Your task to perform on an android device: Show me productivity apps on the Play Store Image 0: 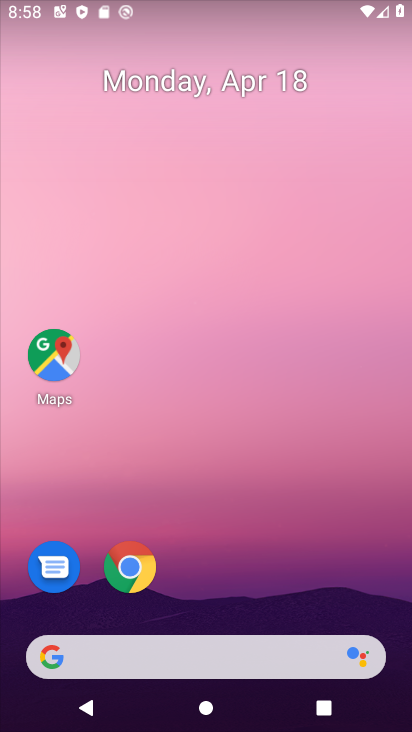
Step 0: drag from (187, 349) to (219, 94)
Your task to perform on an android device: Show me productivity apps on the Play Store Image 1: 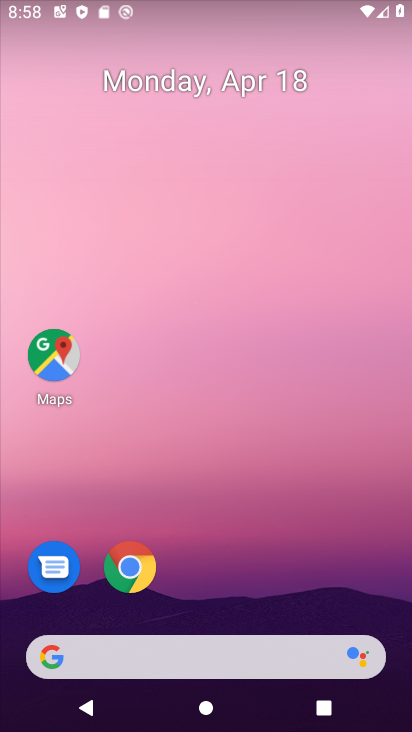
Step 1: drag from (186, 603) to (216, 171)
Your task to perform on an android device: Show me productivity apps on the Play Store Image 2: 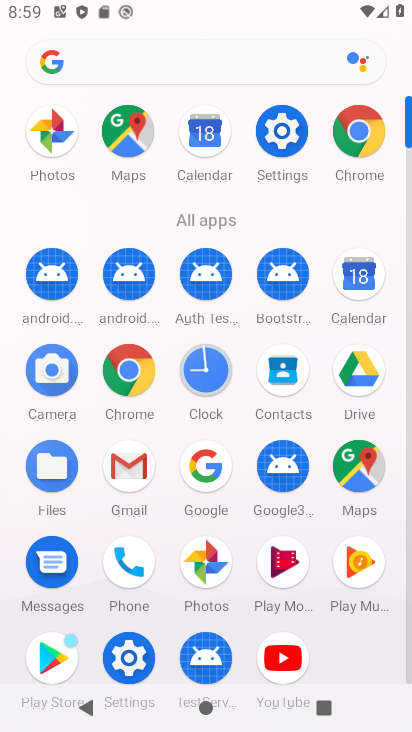
Step 2: click (55, 645)
Your task to perform on an android device: Show me productivity apps on the Play Store Image 3: 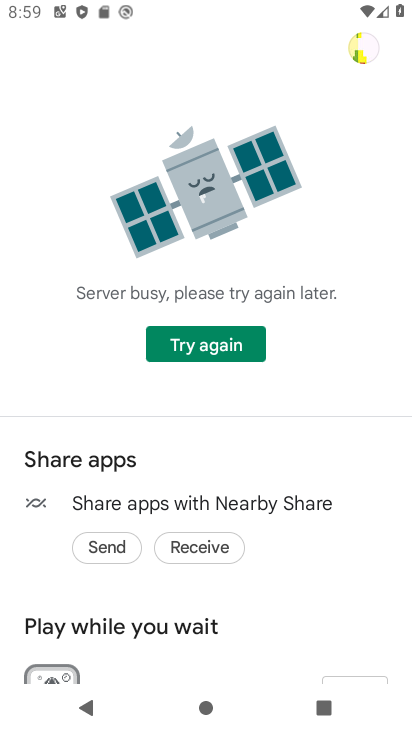
Step 3: drag from (249, 475) to (253, 223)
Your task to perform on an android device: Show me productivity apps on the Play Store Image 4: 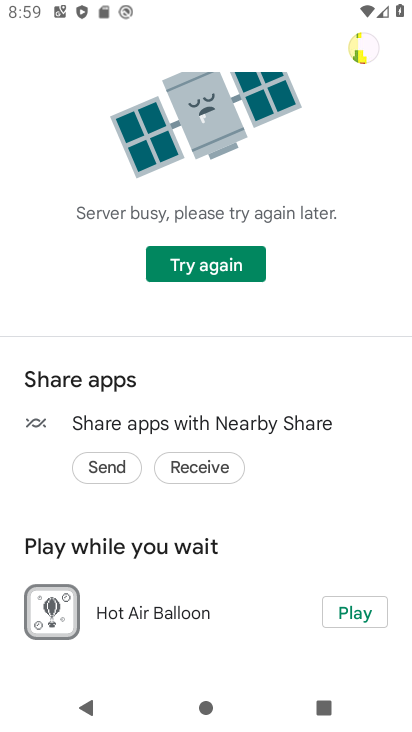
Step 4: drag from (228, 325) to (230, 585)
Your task to perform on an android device: Show me productivity apps on the Play Store Image 5: 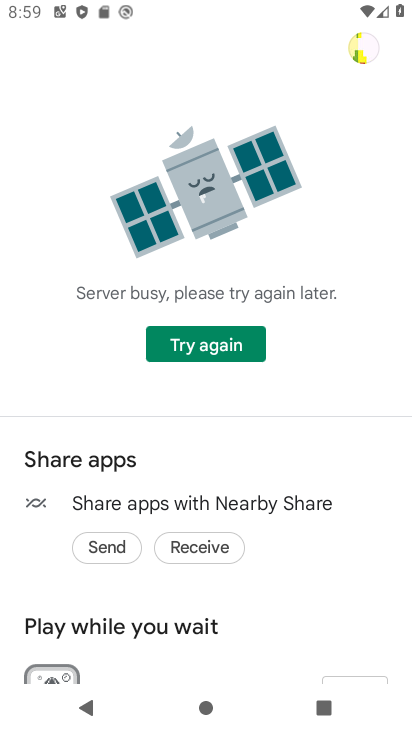
Step 5: click (226, 343)
Your task to perform on an android device: Show me productivity apps on the Play Store Image 6: 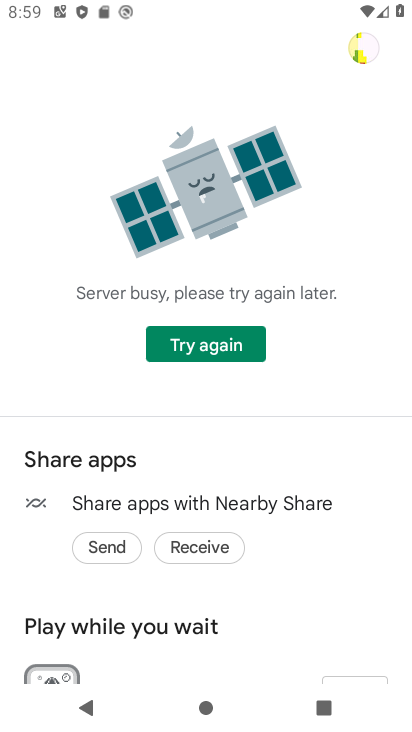
Step 6: click (226, 343)
Your task to perform on an android device: Show me productivity apps on the Play Store Image 7: 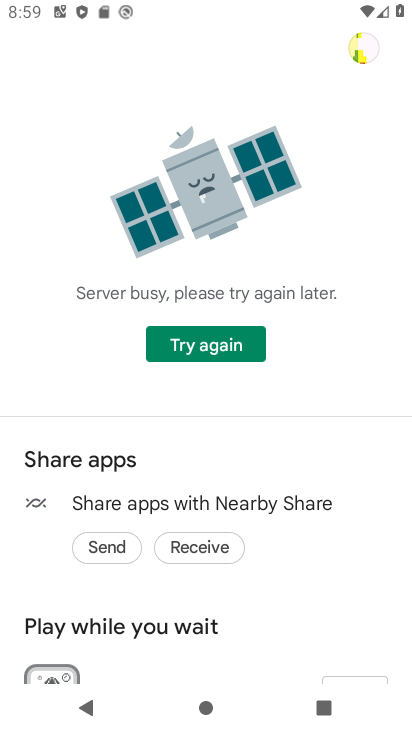
Step 7: task complete